Your task to perform on an android device: Go to eBay Image 0: 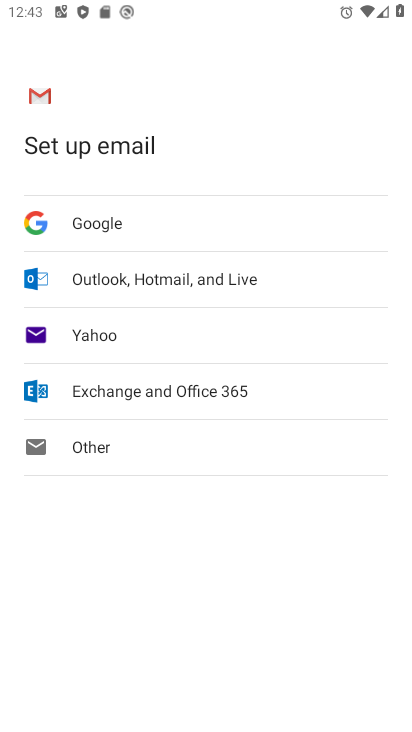
Step 0: press back button
Your task to perform on an android device: Go to eBay Image 1: 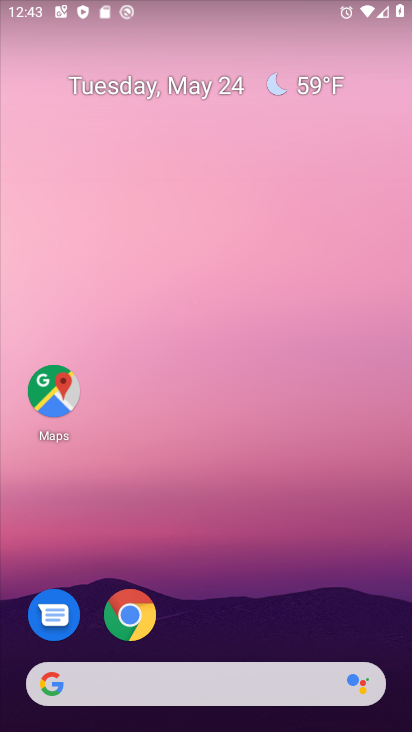
Step 1: drag from (244, 624) to (221, 18)
Your task to perform on an android device: Go to eBay Image 2: 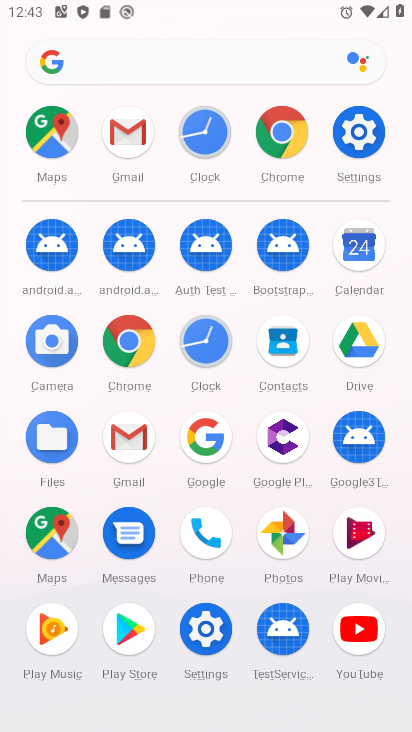
Step 2: click (132, 332)
Your task to perform on an android device: Go to eBay Image 3: 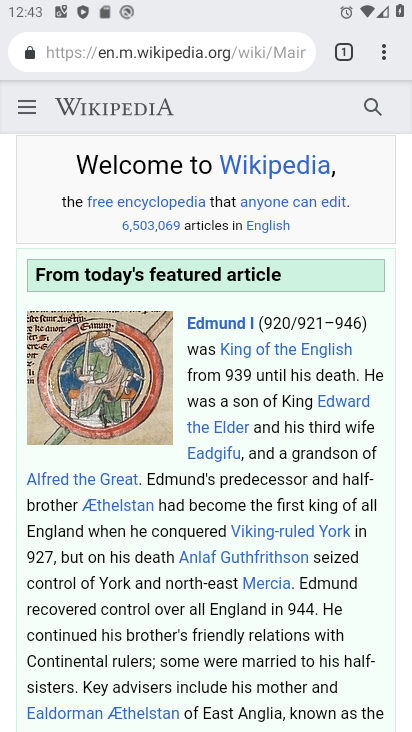
Step 3: click (167, 45)
Your task to perform on an android device: Go to eBay Image 4: 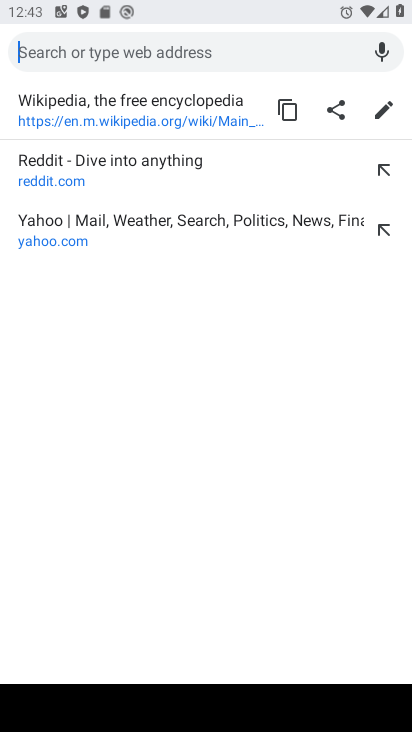
Step 4: type "eBay"
Your task to perform on an android device: Go to eBay Image 5: 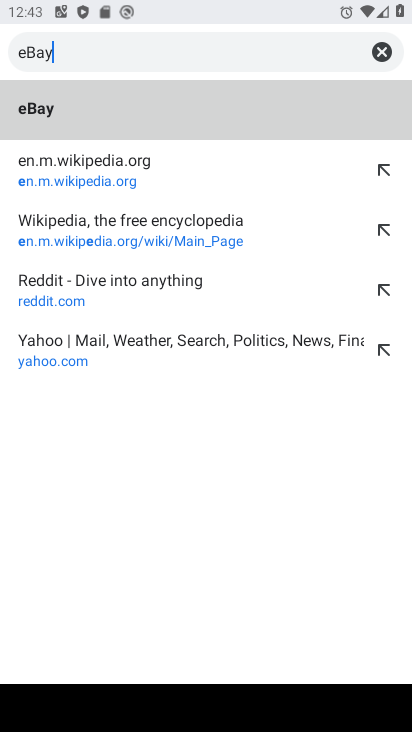
Step 5: type ""
Your task to perform on an android device: Go to eBay Image 6: 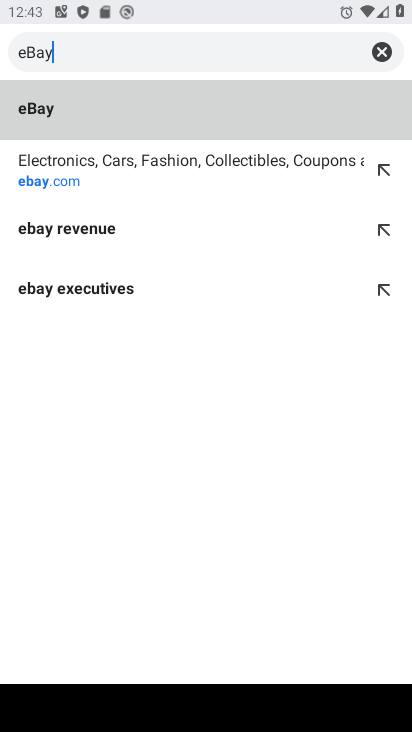
Step 6: click (64, 168)
Your task to perform on an android device: Go to eBay Image 7: 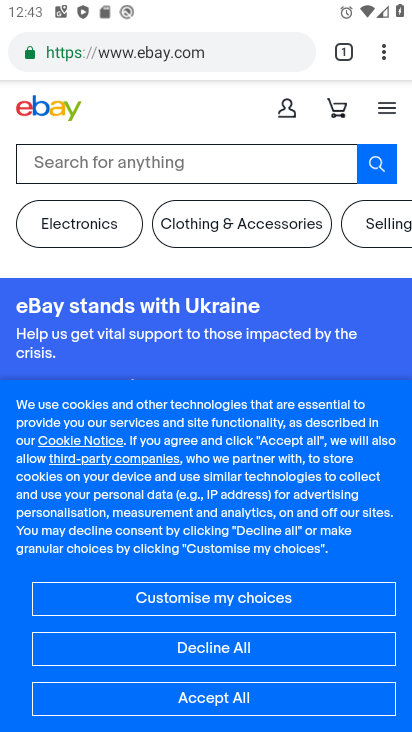
Step 7: task complete